Your task to perform on an android device: Turn on the flashlight Image 0: 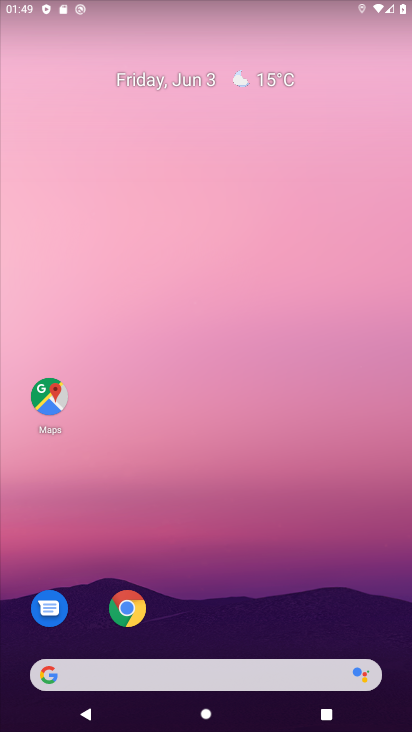
Step 0: drag from (254, 604) to (291, 183)
Your task to perform on an android device: Turn on the flashlight Image 1: 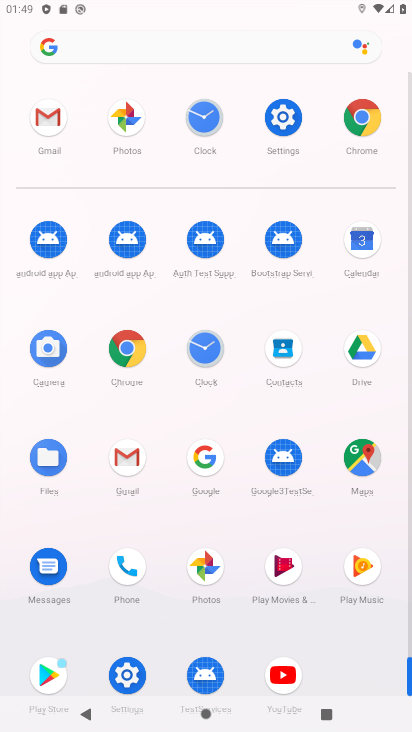
Step 1: click (297, 123)
Your task to perform on an android device: Turn on the flashlight Image 2: 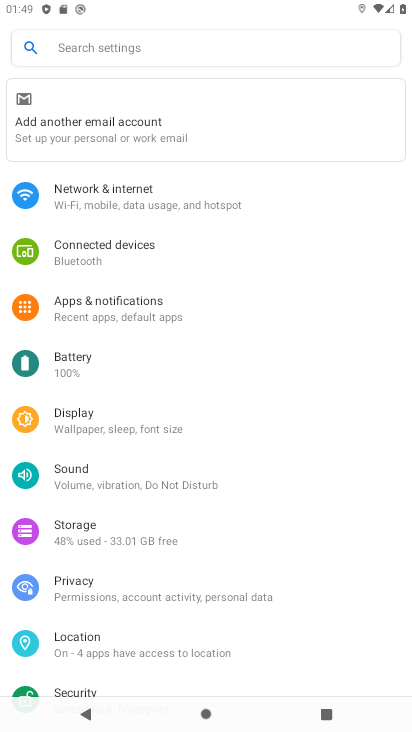
Step 2: click (118, 420)
Your task to perform on an android device: Turn on the flashlight Image 3: 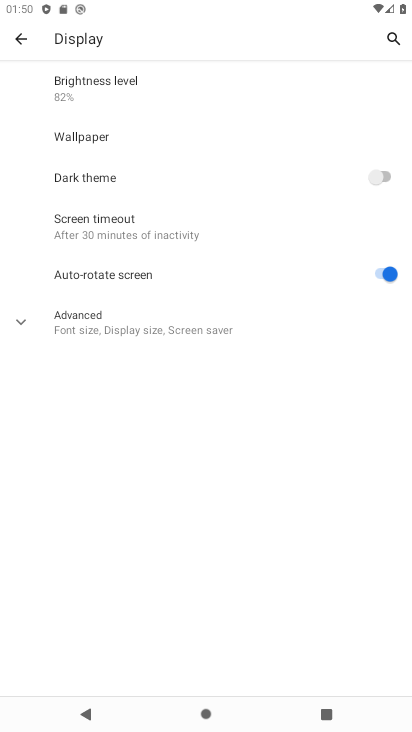
Step 3: task complete